Your task to perform on an android device: open app "DuckDuckGo Privacy Browser" (install if not already installed) Image 0: 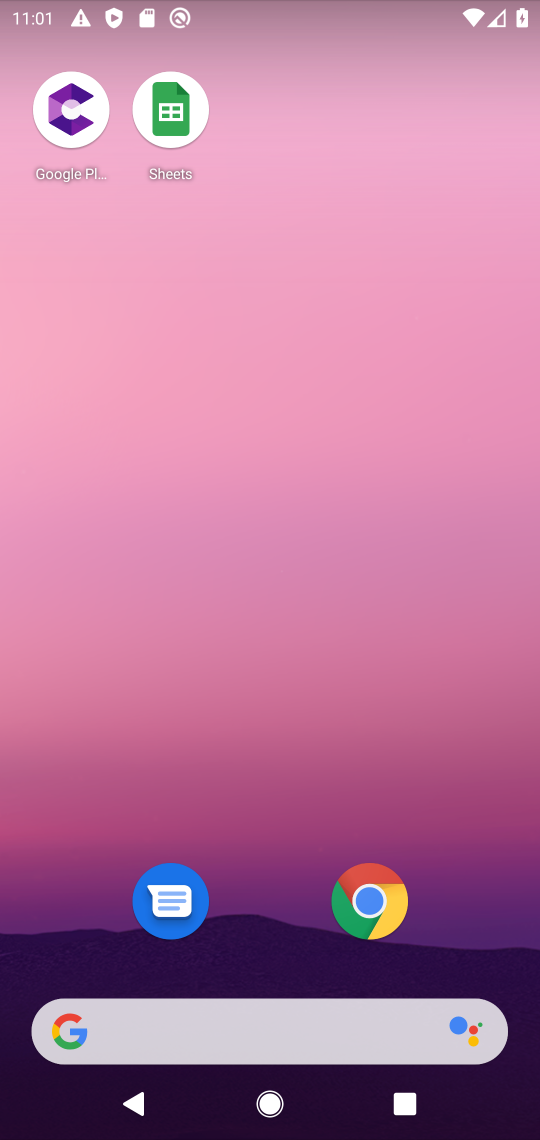
Step 0: drag from (261, 993) to (342, 310)
Your task to perform on an android device: open app "DuckDuckGo Privacy Browser" (install if not already installed) Image 1: 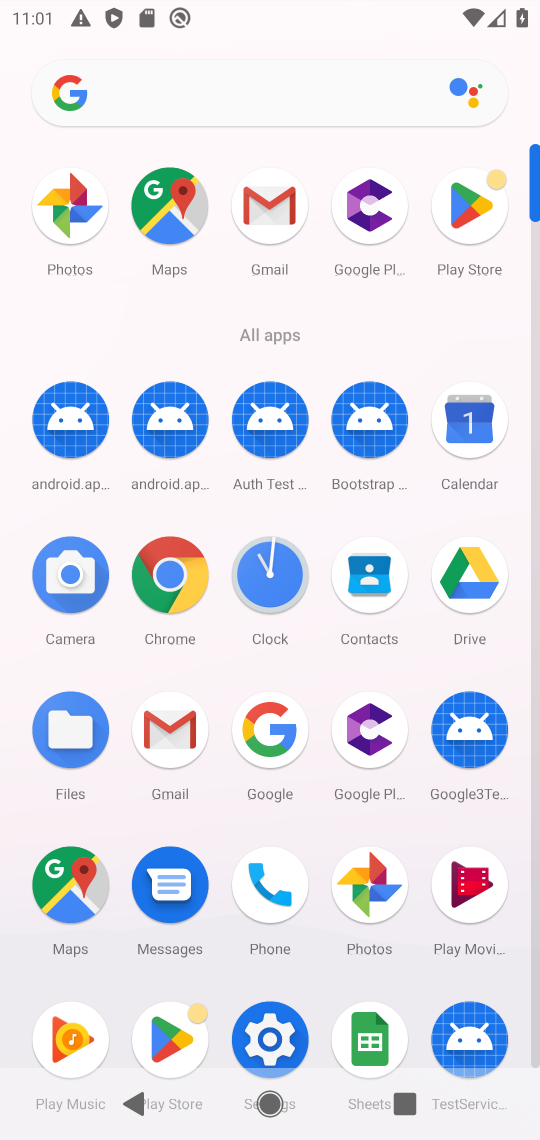
Step 1: click (474, 203)
Your task to perform on an android device: open app "DuckDuckGo Privacy Browser" (install if not already installed) Image 2: 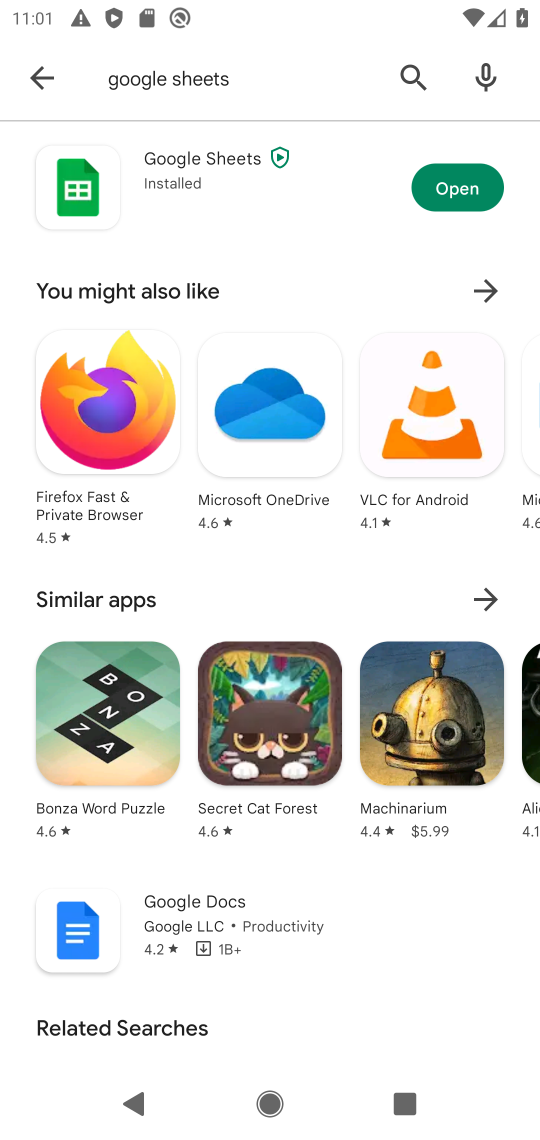
Step 2: click (401, 77)
Your task to perform on an android device: open app "DuckDuckGo Privacy Browser" (install if not already installed) Image 3: 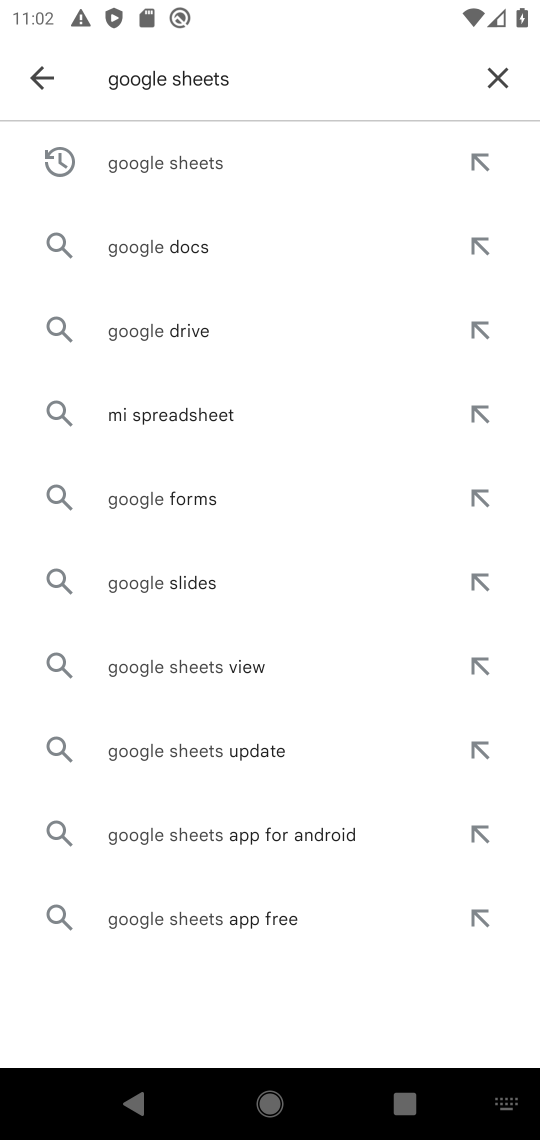
Step 3: click (498, 79)
Your task to perform on an android device: open app "DuckDuckGo Privacy Browser" (install if not already installed) Image 4: 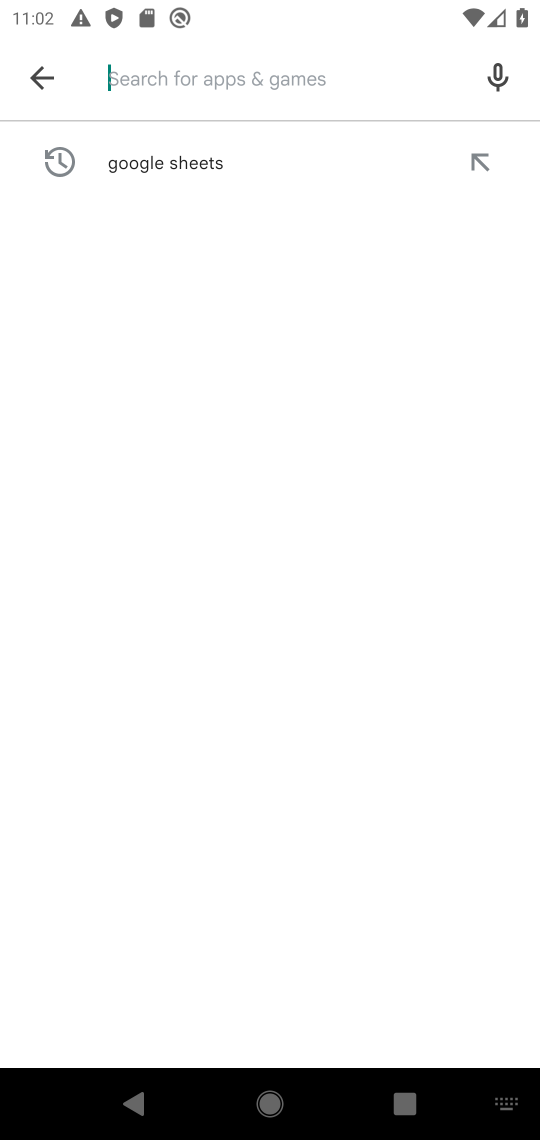
Step 4: click (241, 77)
Your task to perform on an android device: open app "DuckDuckGo Privacy Browser" (install if not already installed) Image 5: 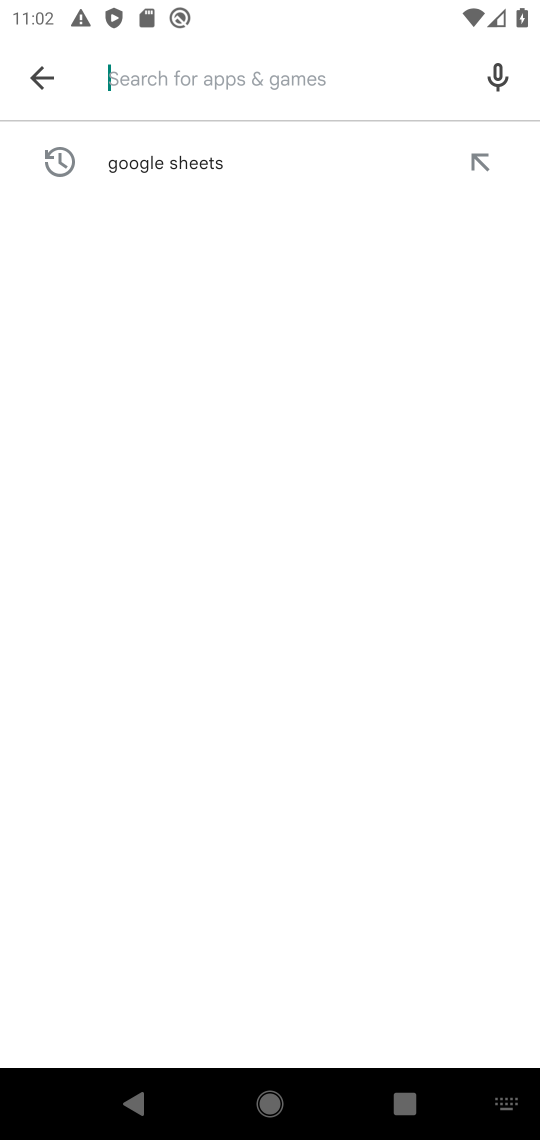
Step 5: type "DuckDuckGo Privacy Browser"
Your task to perform on an android device: open app "DuckDuckGo Privacy Browser" (install if not already installed) Image 6: 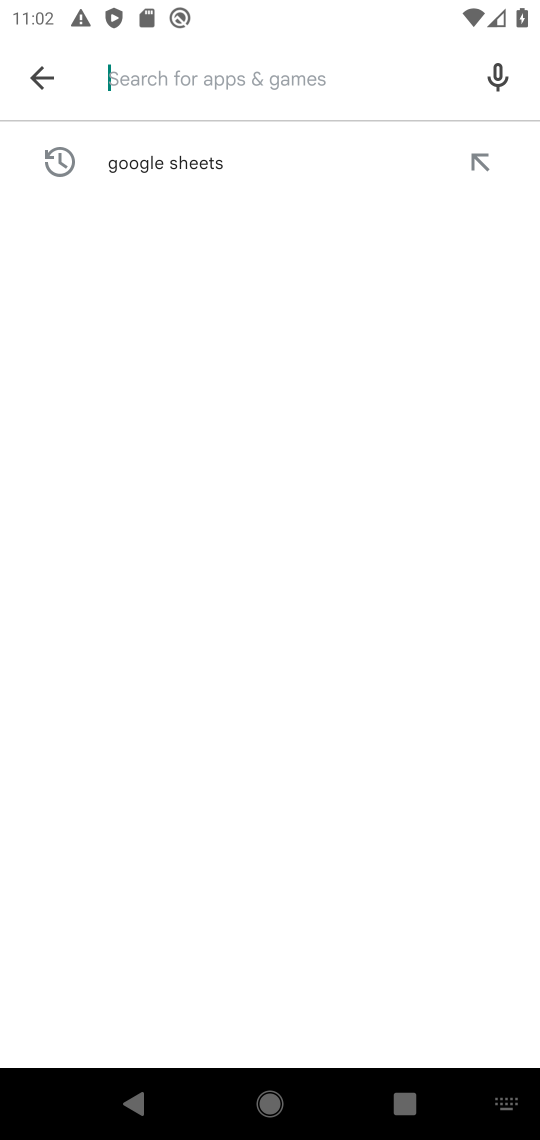
Step 6: click (193, 71)
Your task to perform on an android device: open app "DuckDuckGo Privacy Browser" (install if not already installed) Image 7: 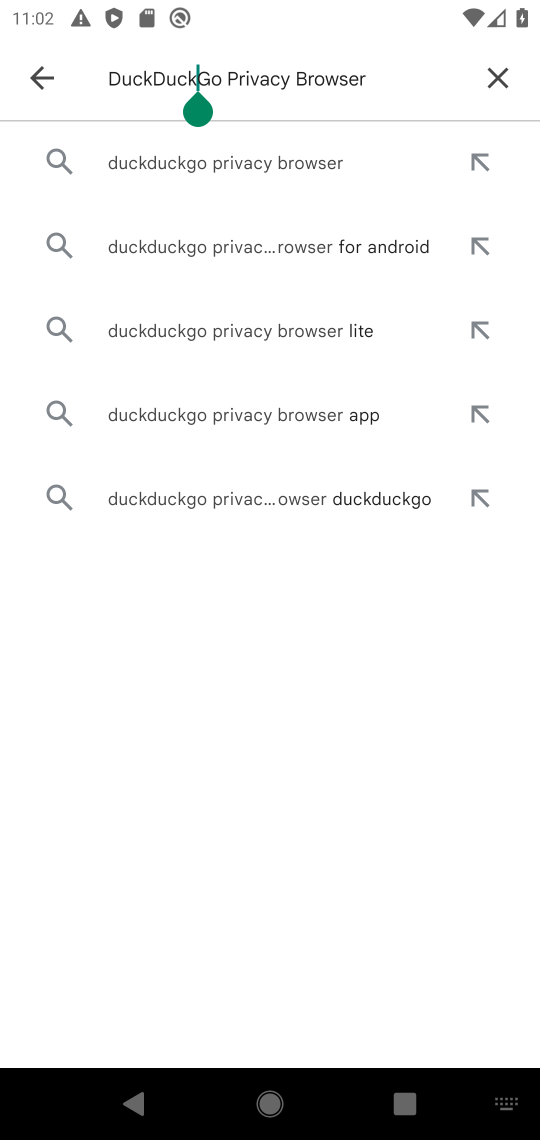
Step 7: click (259, 167)
Your task to perform on an android device: open app "DuckDuckGo Privacy Browser" (install if not already installed) Image 8: 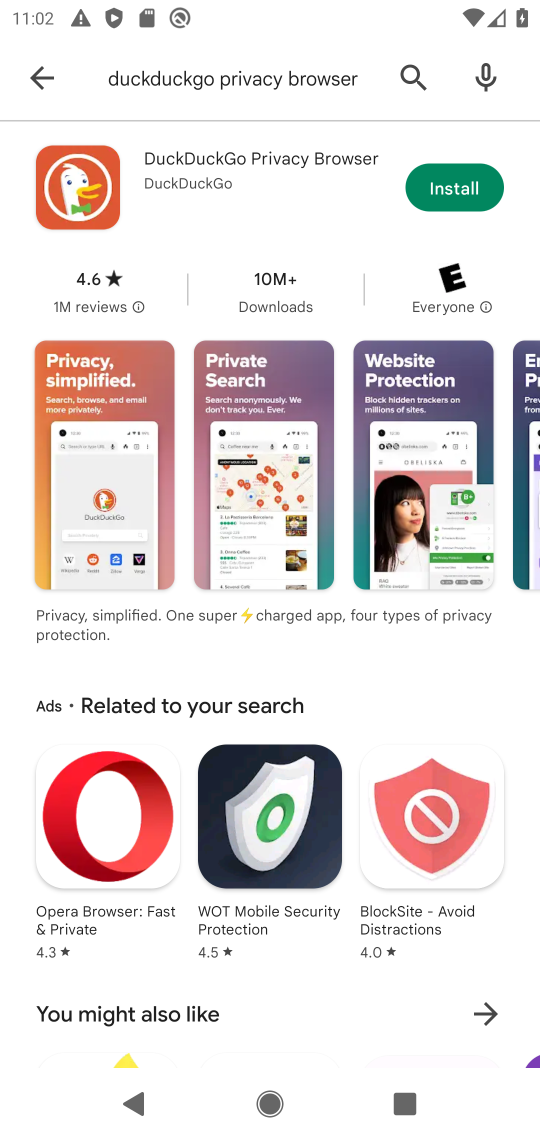
Step 8: click (443, 184)
Your task to perform on an android device: open app "DuckDuckGo Privacy Browser" (install if not already installed) Image 9: 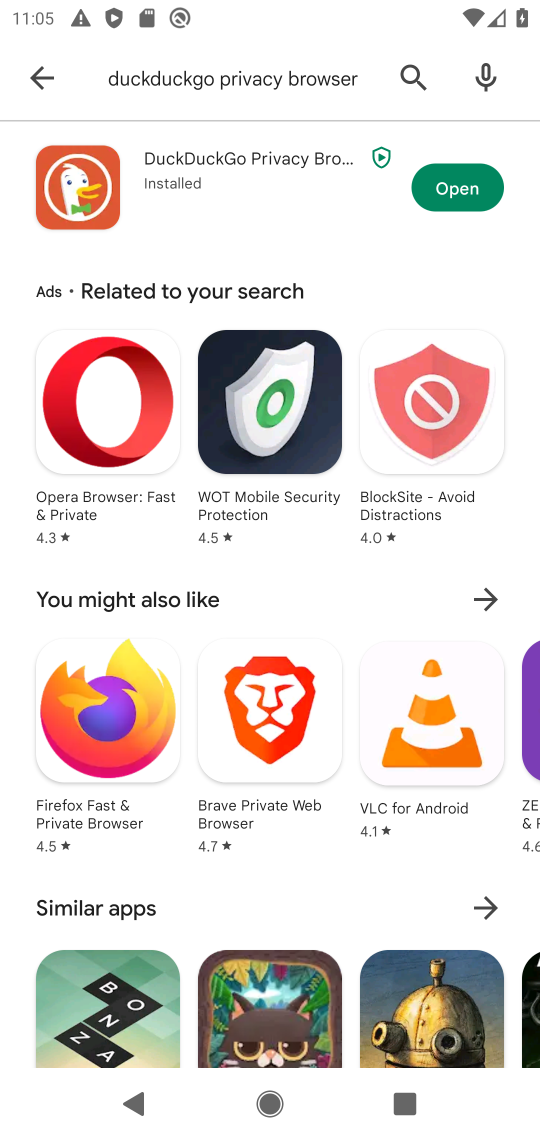
Step 9: click (492, 186)
Your task to perform on an android device: open app "DuckDuckGo Privacy Browser" (install if not already installed) Image 10: 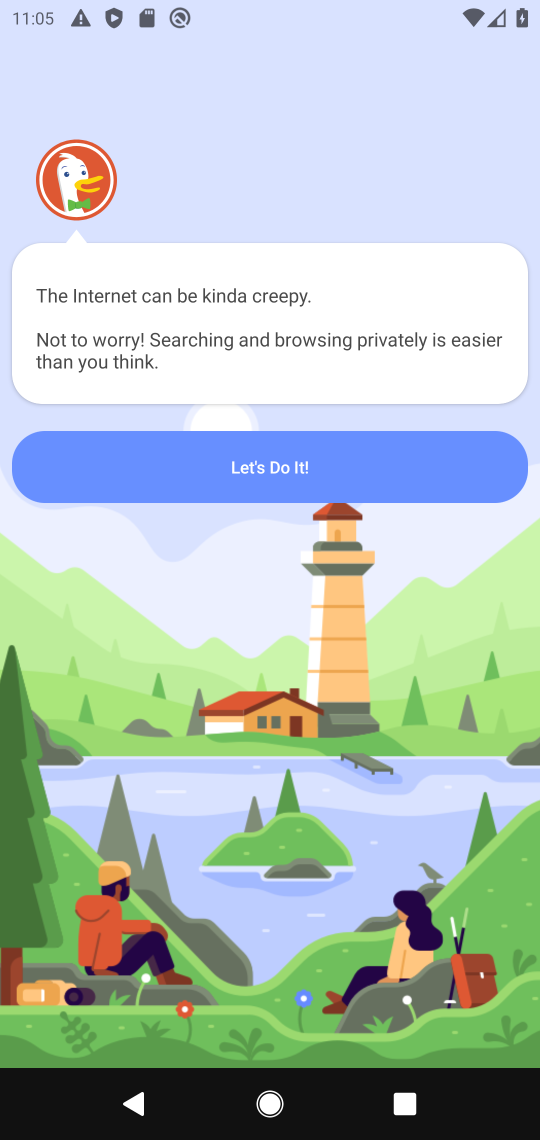
Step 10: task complete